Your task to perform on an android device: Go to accessibility settings Image 0: 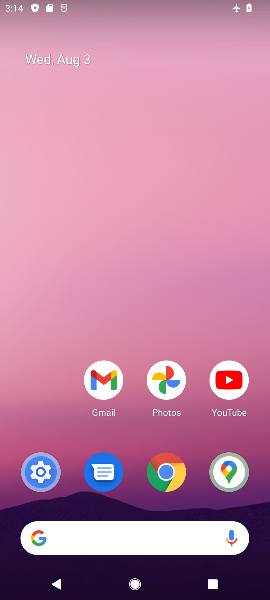
Step 0: drag from (190, 483) to (106, 39)
Your task to perform on an android device: Go to accessibility settings Image 1: 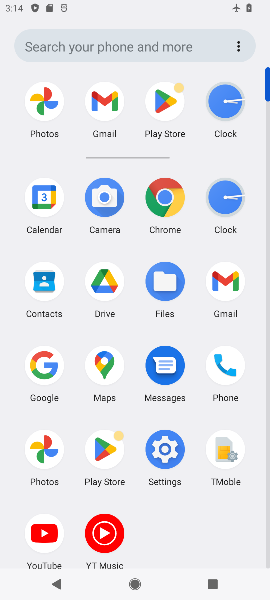
Step 1: click (152, 465)
Your task to perform on an android device: Go to accessibility settings Image 2: 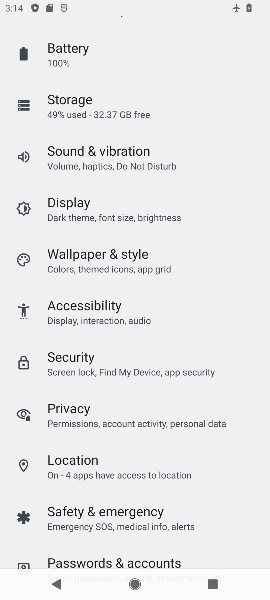
Step 2: click (97, 322)
Your task to perform on an android device: Go to accessibility settings Image 3: 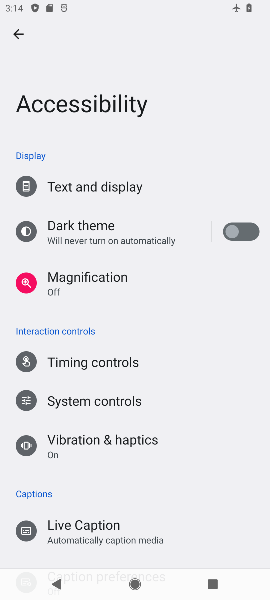
Step 3: task complete